Your task to perform on an android device: Open Reddit.com Image 0: 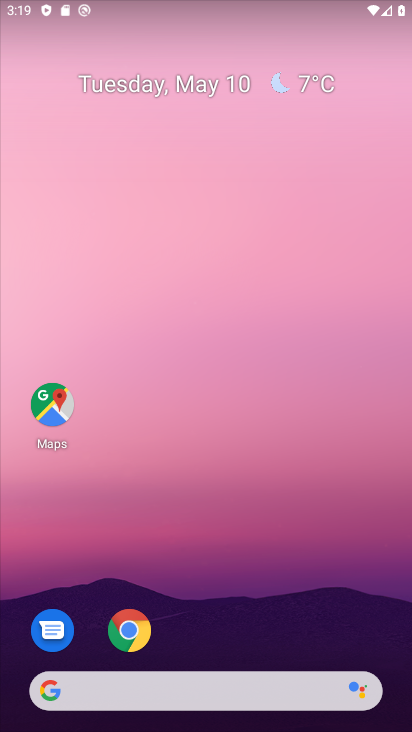
Step 0: click (116, 623)
Your task to perform on an android device: Open Reddit.com Image 1: 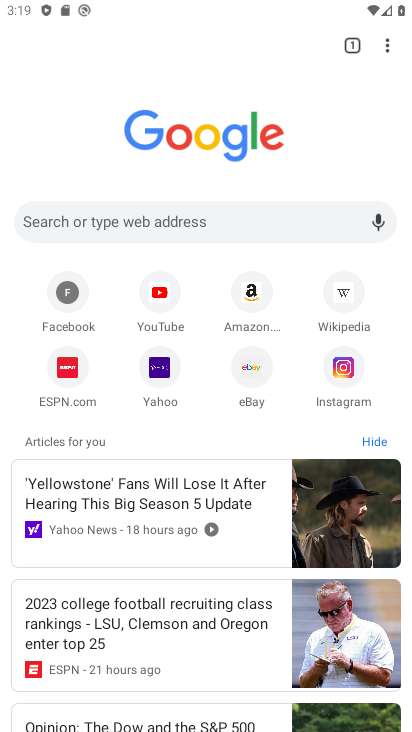
Step 1: click (232, 228)
Your task to perform on an android device: Open Reddit.com Image 2: 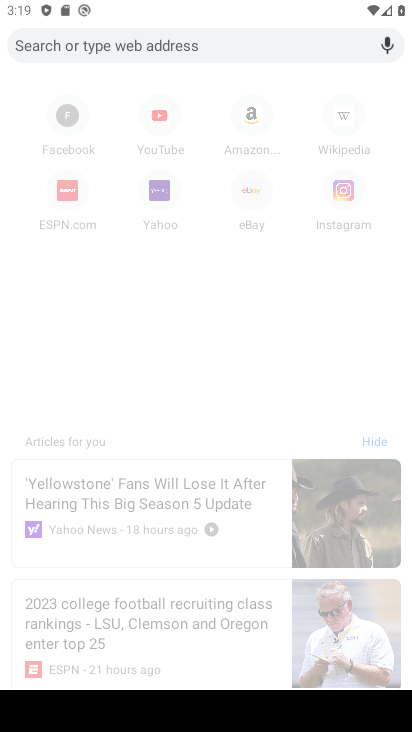
Step 2: type "reddit.com"
Your task to perform on an android device: Open Reddit.com Image 3: 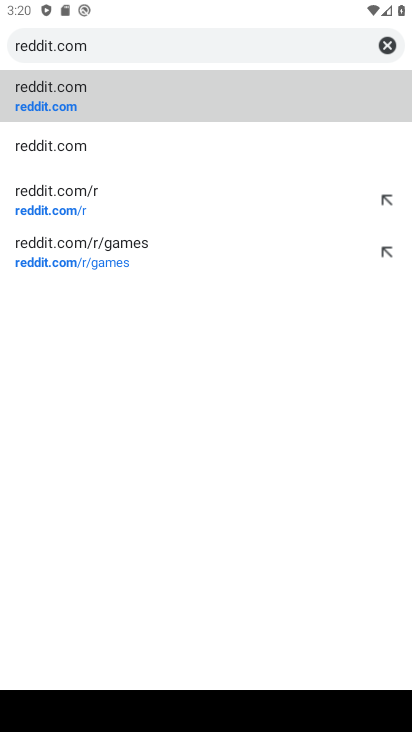
Step 3: click (209, 107)
Your task to perform on an android device: Open Reddit.com Image 4: 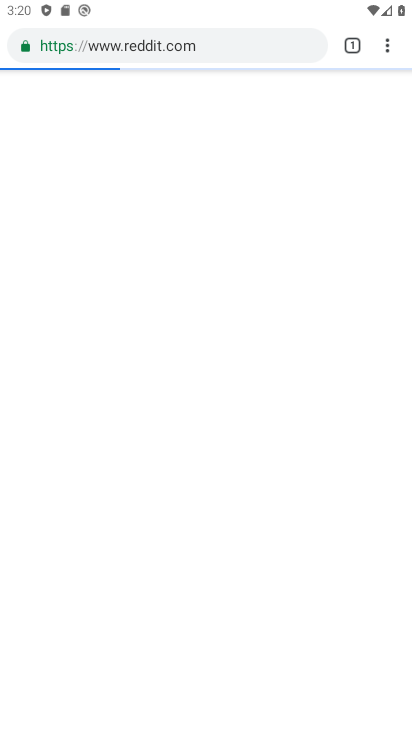
Step 4: task complete